Your task to perform on an android device: stop showing notifications on the lock screen Image 0: 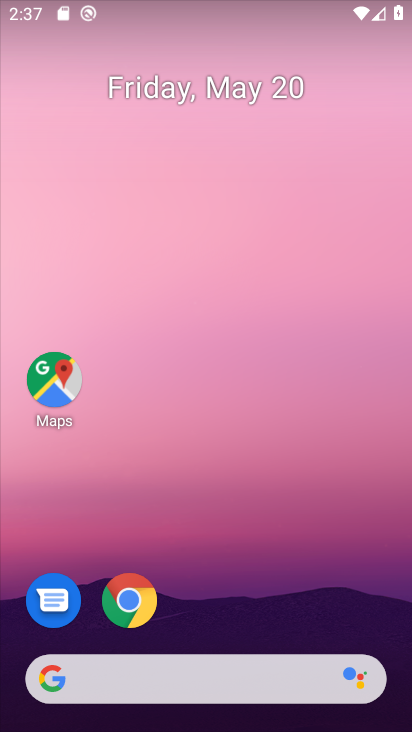
Step 0: drag from (373, 619) to (349, 267)
Your task to perform on an android device: stop showing notifications on the lock screen Image 1: 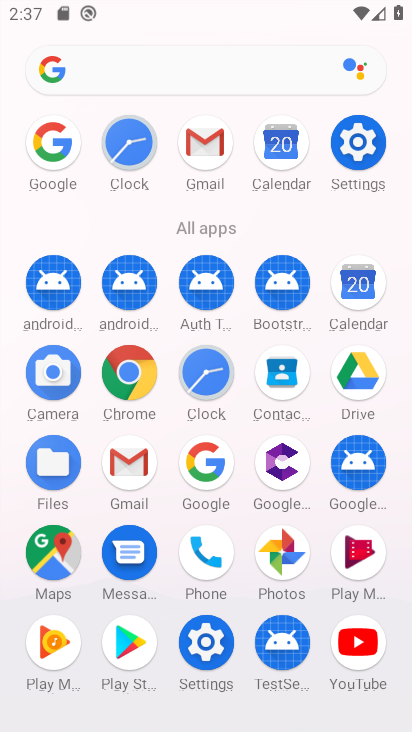
Step 1: click (365, 144)
Your task to perform on an android device: stop showing notifications on the lock screen Image 2: 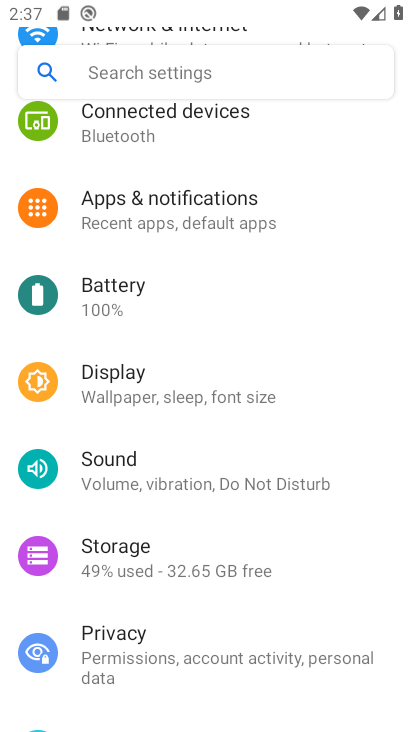
Step 2: drag from (340, 261) to (341, 351)
Your task to perform on an android device: stop showing notifications on the lock screen Image 3: 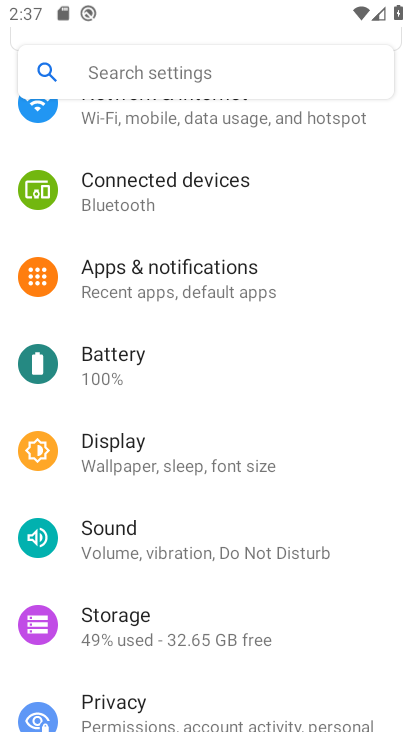
Step 3: drag from (335, 223) to (330, 290)
Your task to perform on an android device: stop showing notifications on the lock screen Image 4: 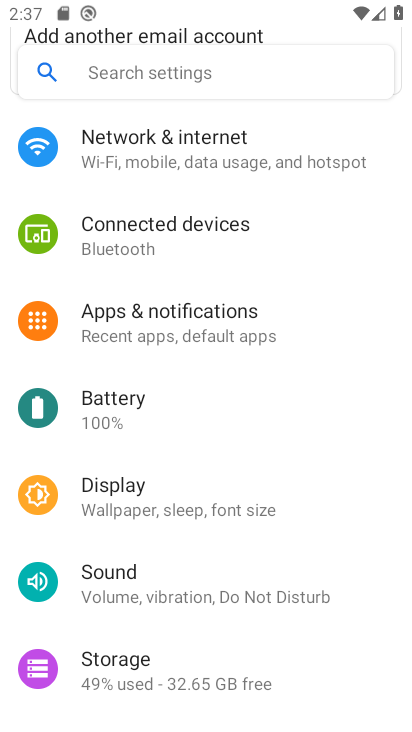
Step 4: drag from (331, 227) to (326, 303)
Your task to perform on an android device: stop showing notifications on the lock screen Image 5: 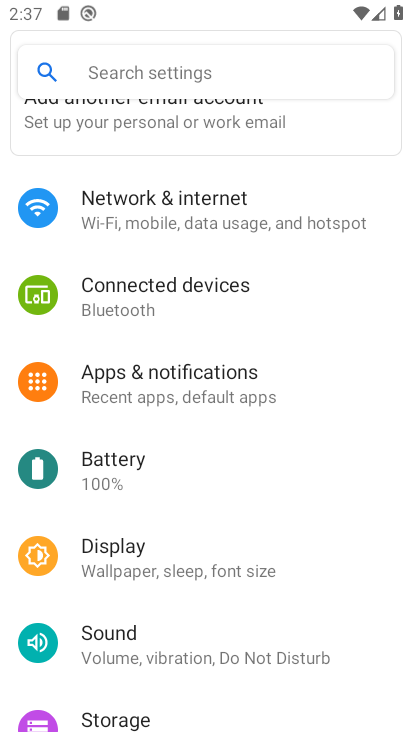
Step 5: drag from (334, 194) to (334, 315)
Your task to perform on an android device: stop showing notifications on the lock screen Image 6: 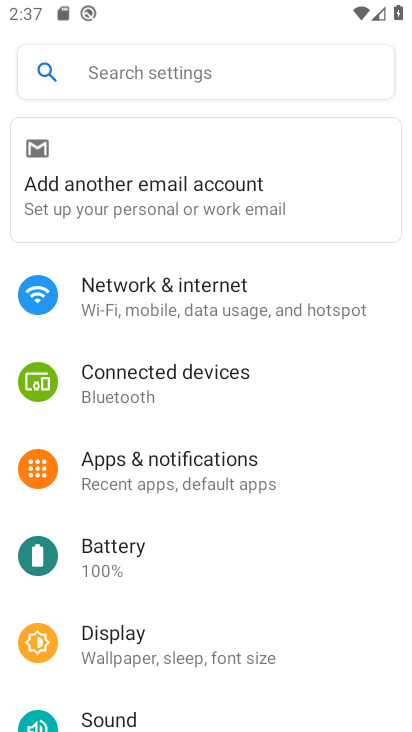
Step 6: drag from (338, 242) to (338, 343)
Your task to perform on an android device: stop showing notifications on the lock screen Image 7: 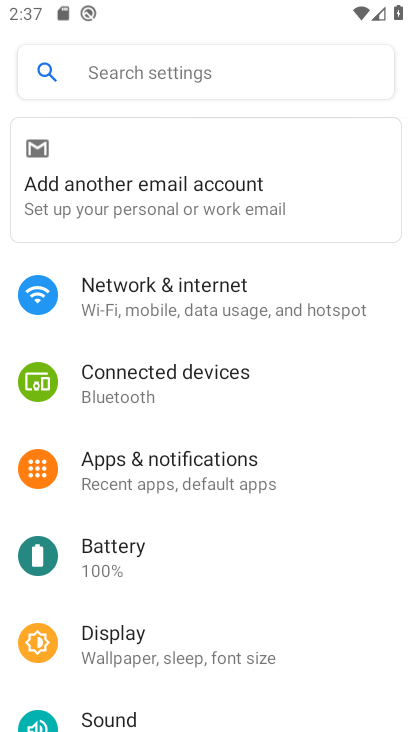
Step 7: drag from (333, 499) to (338, 409)
Your task to perform on an android device: stop showing notifications on the lock screen Image 8: 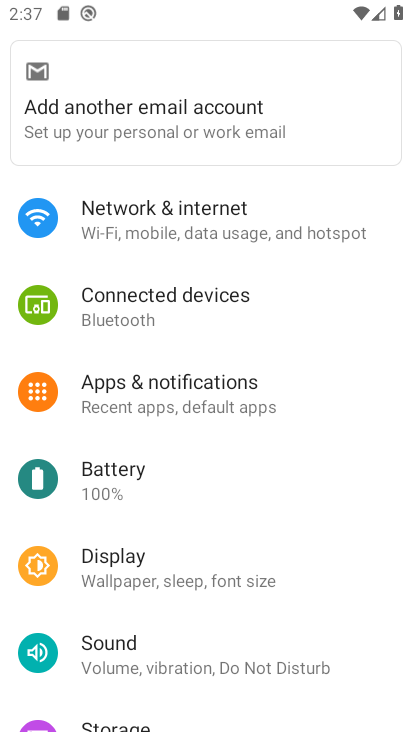
Step 8: drag from (340, 523) to (334, 433)
Your task to perform on an android device: stop showing notifications on the lock screen Image 9: 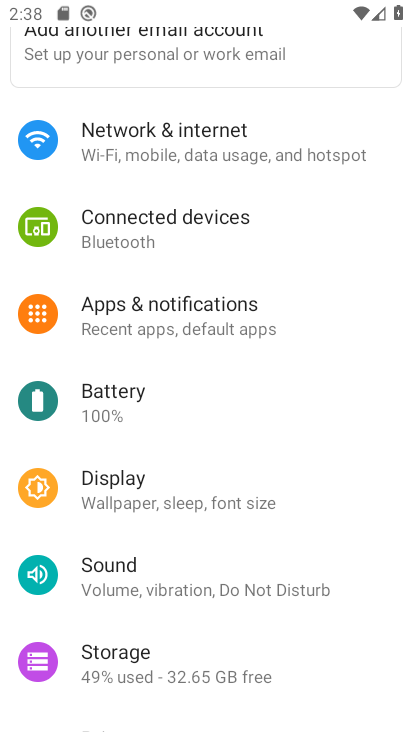
Step 9: drag from (335, 547) to (334, 460)
Your task to perform on an android device: stop showing notifications on the lock screen Image 10: 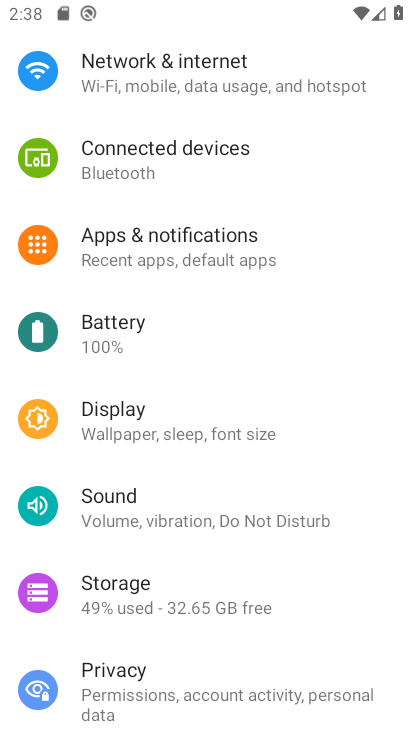
Step 10: drag from (332, 555) to (328, 491)
Your task to perform on an android device: stop showing notifications on the lock screen Image 11: 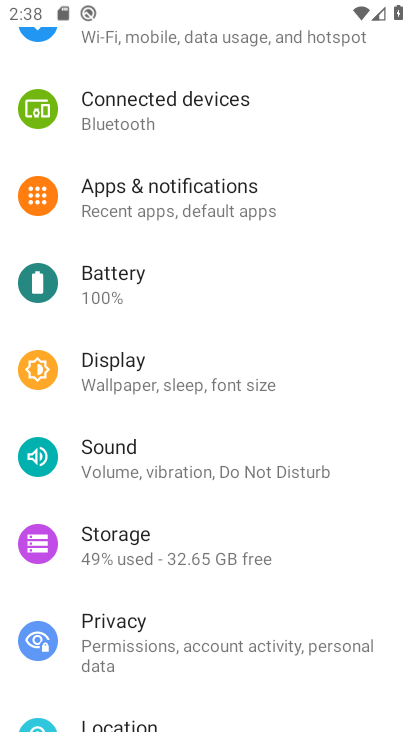
Step 11: drag from (324, 551) to (322, 478)
Your task to perform on an android device: stop showing notifications on the lock screen Image 12: 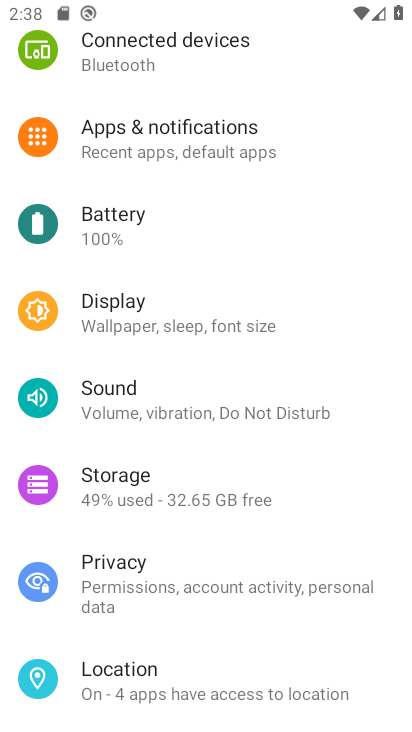
Step 12: drag from (314, 545) to (314, 498)
Your task to perform on an android device: stop showing notifications on the lock screen Image 13: 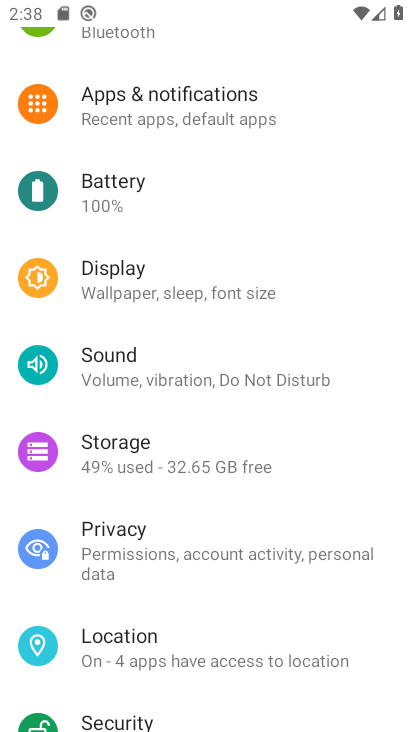
Step 13: drag from (301, 558) to (302, 492)
Your task to perform on an android device: stop showing notifications on the lock screen Image 14: 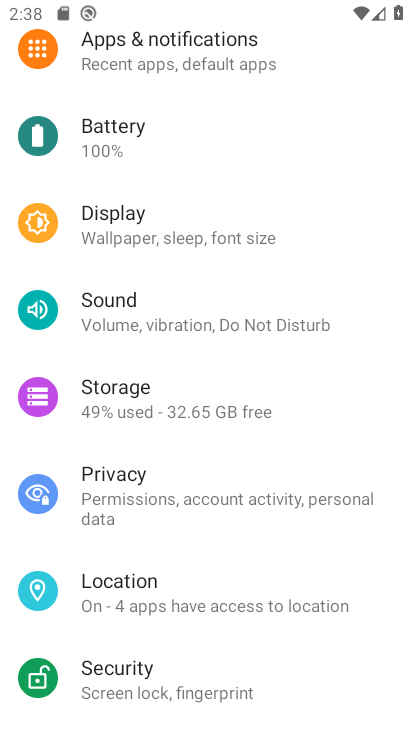
Step 14: drag from (307, 549) to (314, 495)
Your task to perform on an android device: stop showing notifications on the lock screen Image 15: 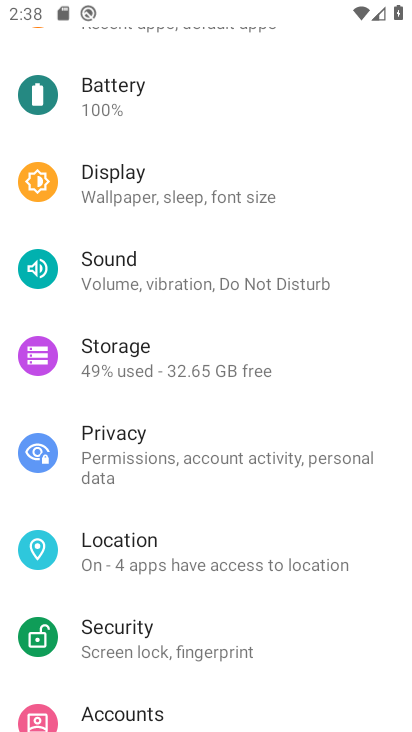
Step 15: drag from (307, 561) to (312, 513)
Your task to perform on an android device: stop showing notifications on the lock screen Image 16: 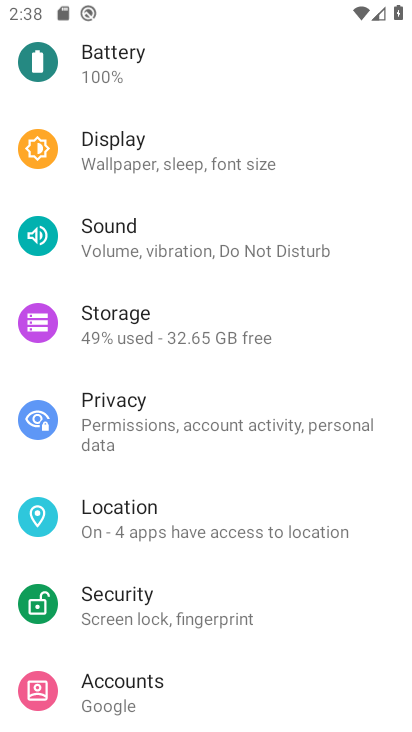
Step 16: drag from (316, 600) to (316, 519)
Your task to perform on an android device: stop showing notifications on the lock screen Image 17: 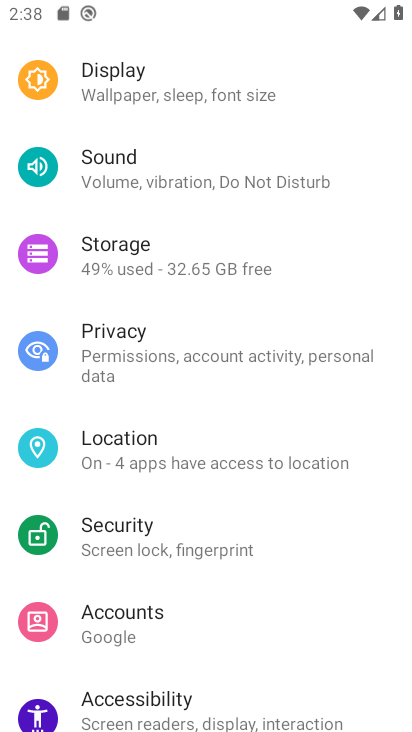
Step 17: drag from (313, 579) to (314, 511)
Your task to perform on an android device: stop showing notifications on the lock screen Image 18: 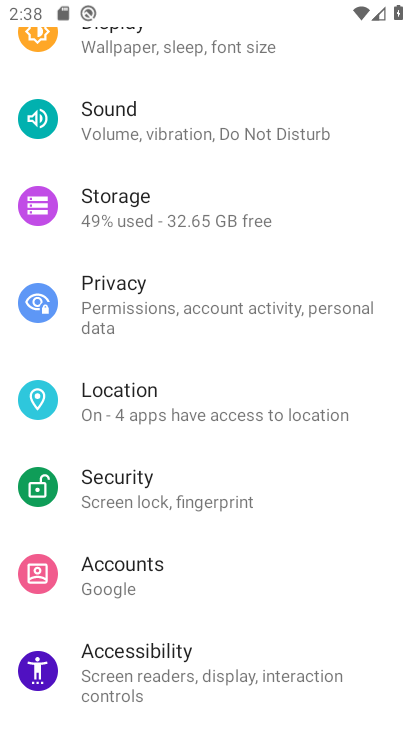
Step 18: drag from (310, 571) to (309, 501)
Your task to perform on an android device: stop showing notifications on the lock screen Image 19: 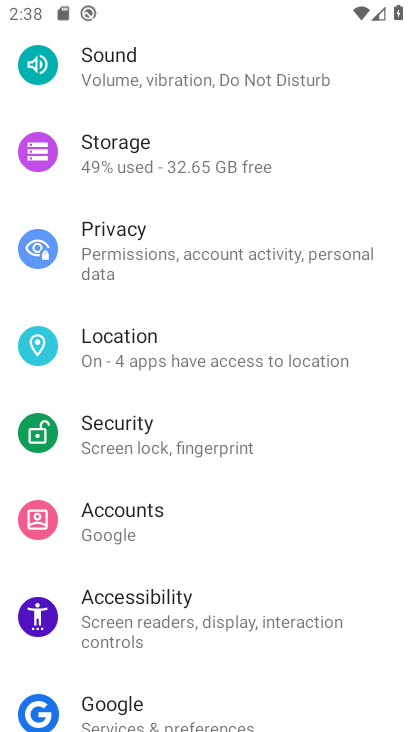
Step 19: drag from (303, 588) to (305, 509)
Your task to perform on an android device: stop showing notifications on the lock screen Image 20: 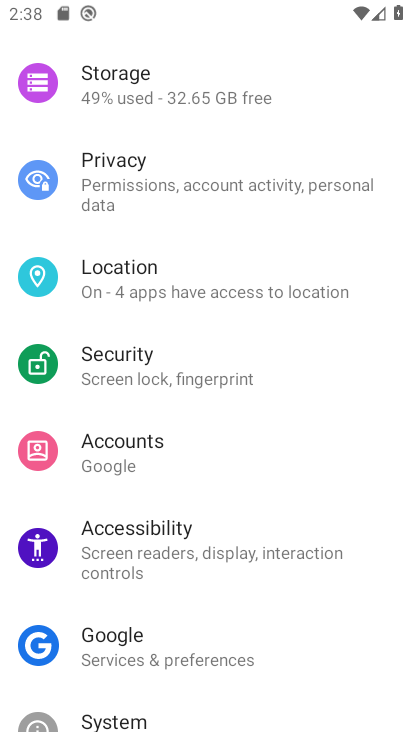
Step 20: drag from (297, 599) to (304, 511)
Your task to perform on an android device: stop showing notifications on the lock screen Image 21: 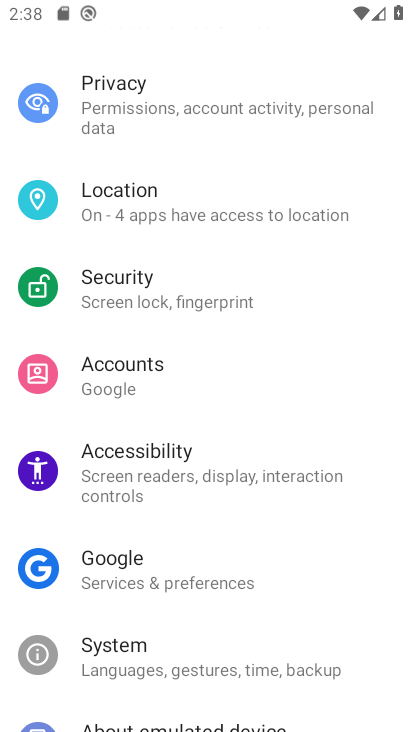
Step 21: drag from (297, 607) to (298, 520)
Your task to perform on an android device: stop showing notifications on the lock screen Image 22: 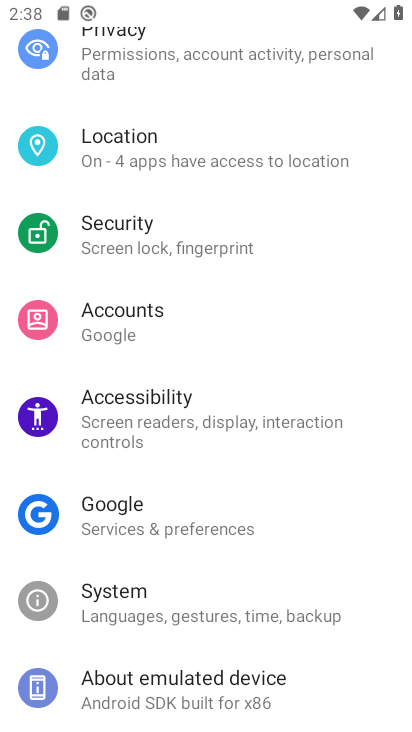
Step 22: drag from (299, 467) to (298, 540)
Your task to perform on an android device: stop showing notifications on the lock screen Image 23: 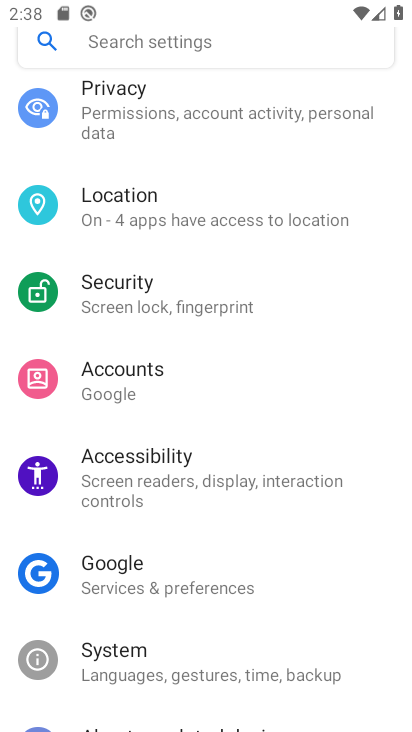
Step 23: drag from (294, 444) to (290, 502)
Your task to perform on an android device: stop showing notifications on the lock screen Image 24: 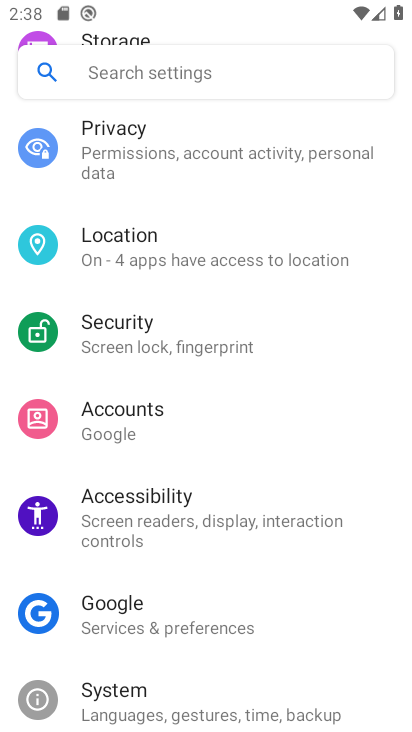
Step 24: drag from (289, 394) to (290, 467)
Your task to perform on an android device: stop showing notifications on the lock screen Image 25: 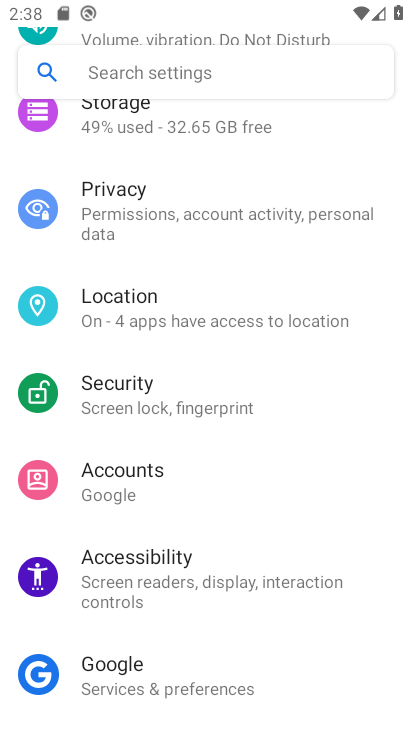
Step 25: drag from (291, 376) to (289, 457)
Your task to perform on an android device: stop showing notifications on the lock screen Image 26: 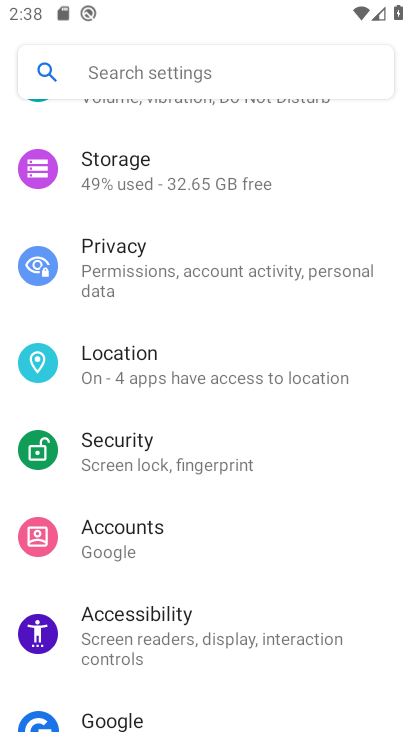
Step 26: drag from (287, 342) to (292, 427)
Your task to perform on an android device: stop showing notifications on the lock screen Image 27: 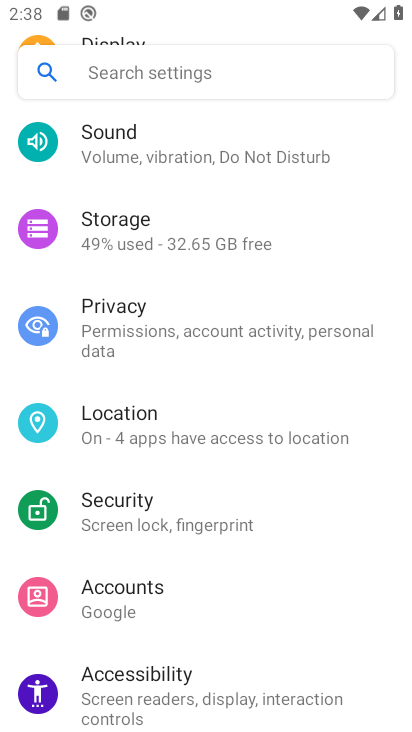
Step 27: drag from (298, 322) to (301, 433)
Your task to perform on an android device: stop showing notifications on the lock screen Image 28: 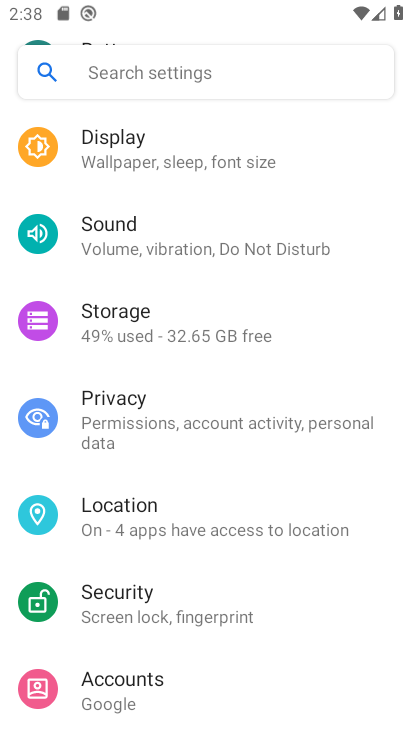
Step 28: drag from (304, 341) to (304, 398)
Your task to perform on an android device: stop showing notifications on the lock screen Image 29: 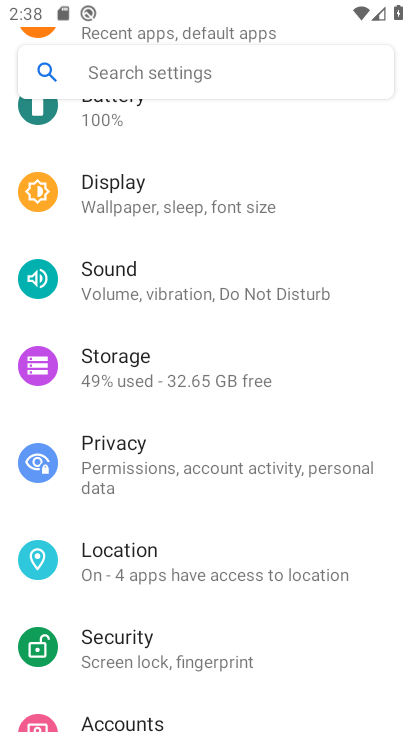
Step 29: drag from (299, 333) to (302, 404)
Your task to perform on an android device: stop showing notifications on the lock screen Image 30: 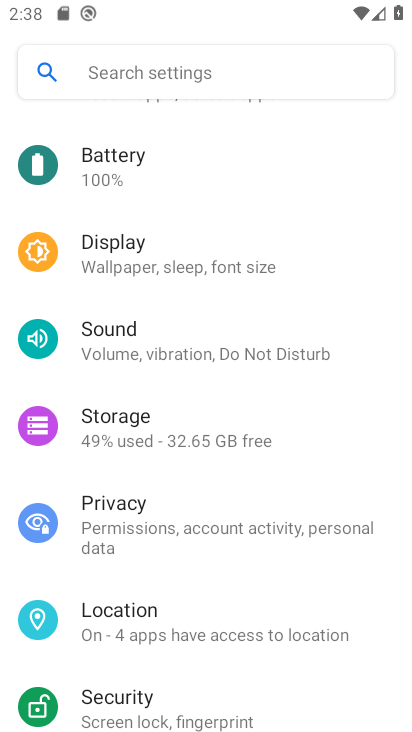
Step 30: drag from (300, 304) to (300, 370)
Your task to perform on an android device: stop showing notifications on the lock screen Image 31: 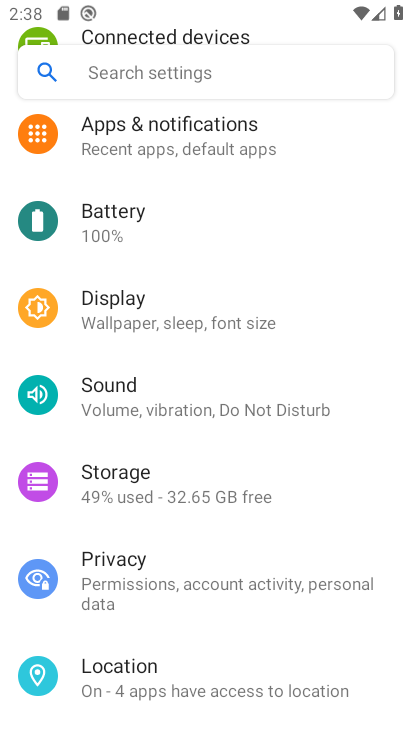
Step 31: drag from (301, 300) to (296, 382)
Your task to perform on an android device: stop showing notifications on the lock screen Image 32: 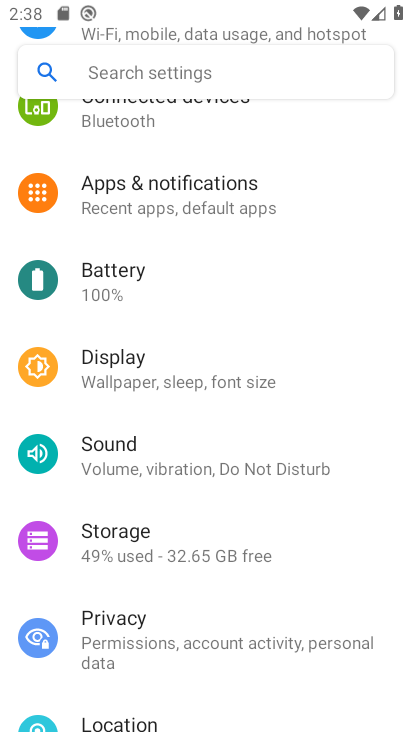
Step 32: drag from (296, 295) to (289, 362)
Your task to perform on an android device: stop showing notifications on the lock screen Image 33: 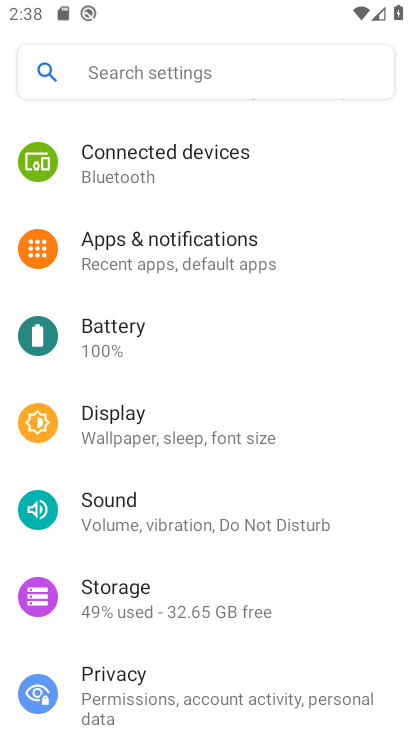
Step 33: drag from (266, 327) to (262, 383)
Your task to perform on an android device: stop showing notifications on the lock screen Image 34: 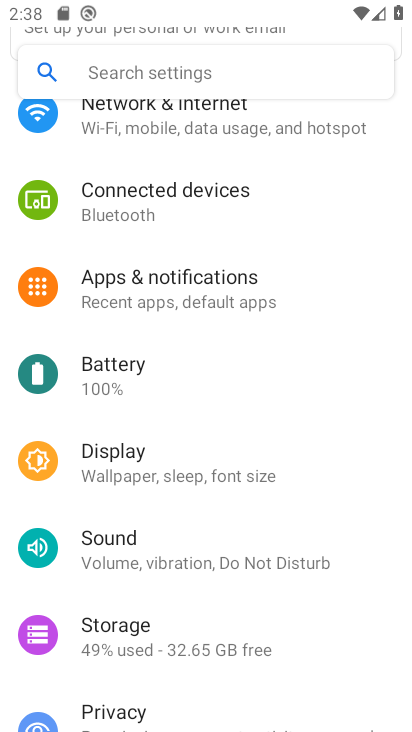
Step 34: click (256, 298)
Your task to perform on an android device: stop showing notifications on the lock screen Image 35: 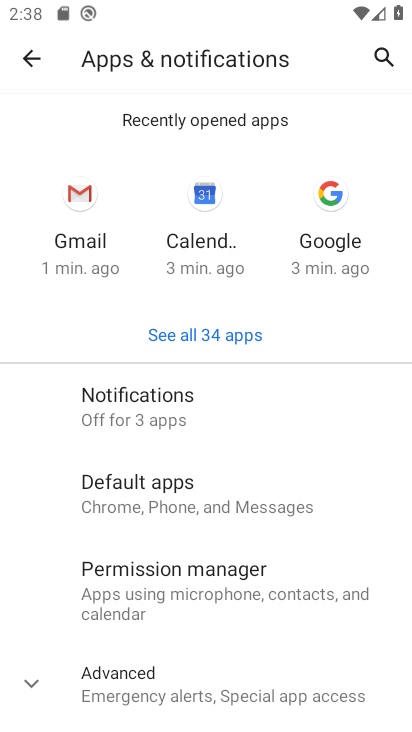
Step 35: drag from (327, 513) to (330, 456)
Your task to perform on an android device: stop showing notifications on the lock screen Image 36: 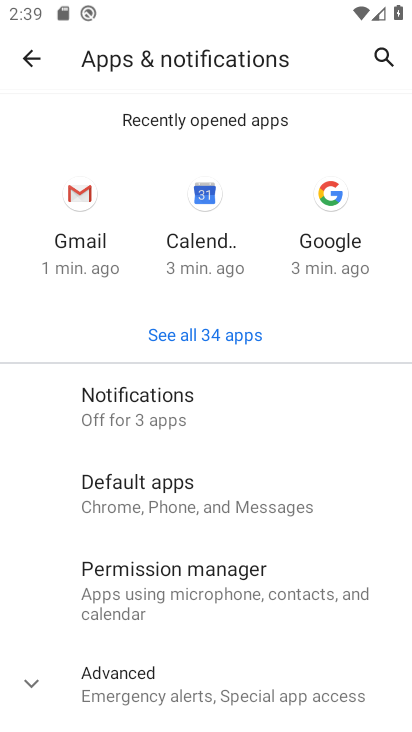
Step 36: click (215, 410)
Your task to perform on an android device: stop showing notifications on the lock screen Image 37: 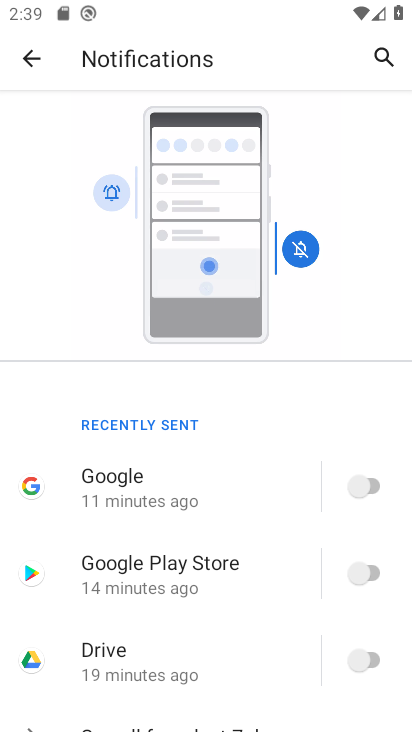
Step 37: drag from (258, 554) to (267, 472)
Your task to perform on an android device: stop showing notifications on the lock screen Image 38: 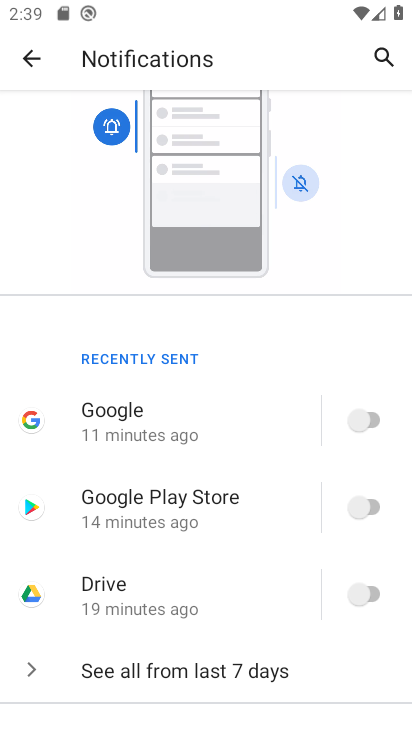
Step 38: drag from (272, 580) to (272, 515)
Your task to perform on an android device: stop showing notifications on the lock screen Image 39: 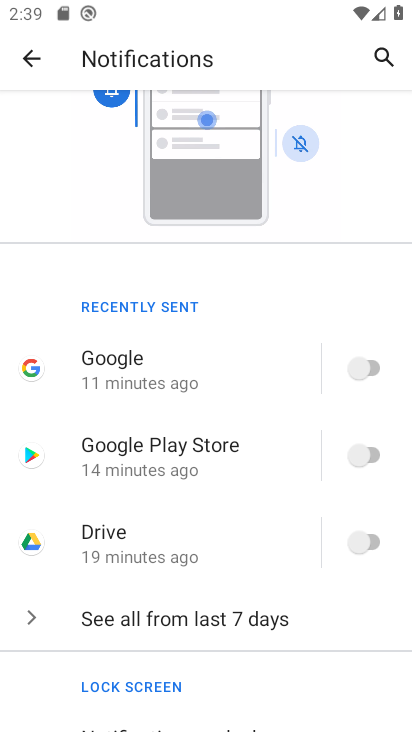
Step 39: drag from (270, 575) to (273, 504)
Your task to perform on an android device: stop showing notifications on the lock screen Image 40: 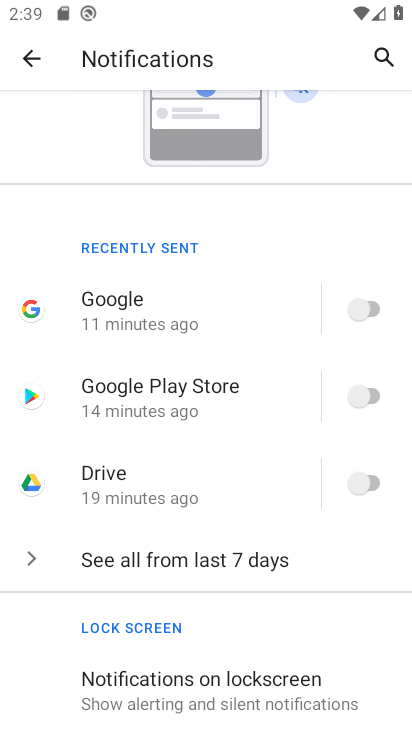
Step 40: drag from (275, 593) to (280, 522)
Your task to perform on an android device: stop showing notifications on the lock screen Image 41: 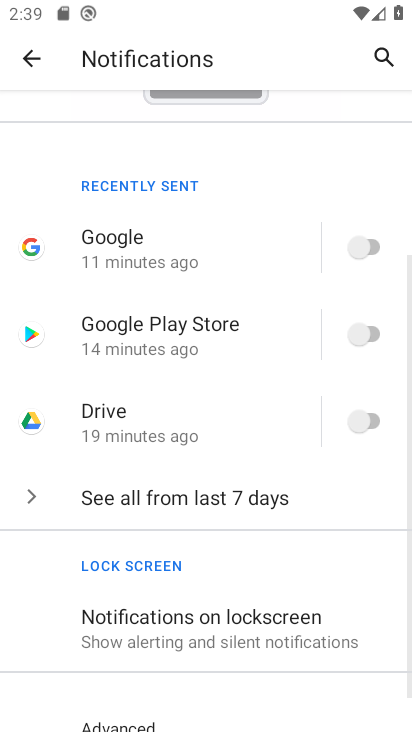
Step 41: drag from (271, 579) to (284, 506)
Your task to perform on an android device: stop showing notifications on the lock screen Image 42: 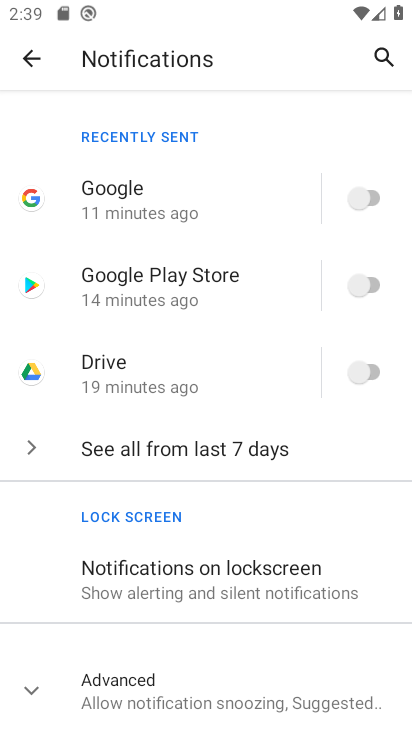
Step 42: click (262, 591)
Your task to perform on an android device: stop showing notifications on the lock screen Image 43: 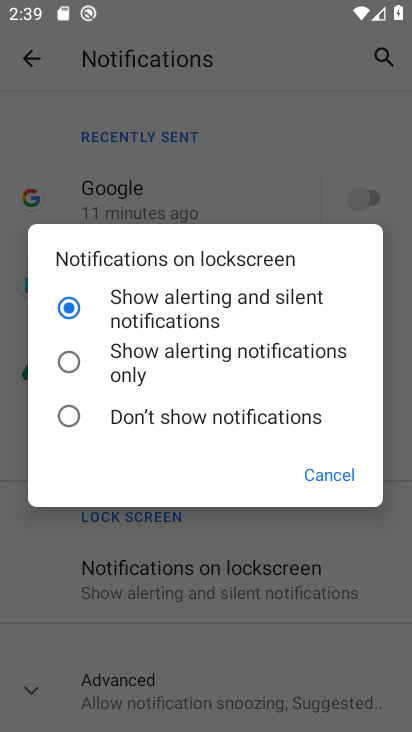
Step 43: click (149, 426)
Your task to perform on an android device: stop showing notifications on the lock screen Image 44: 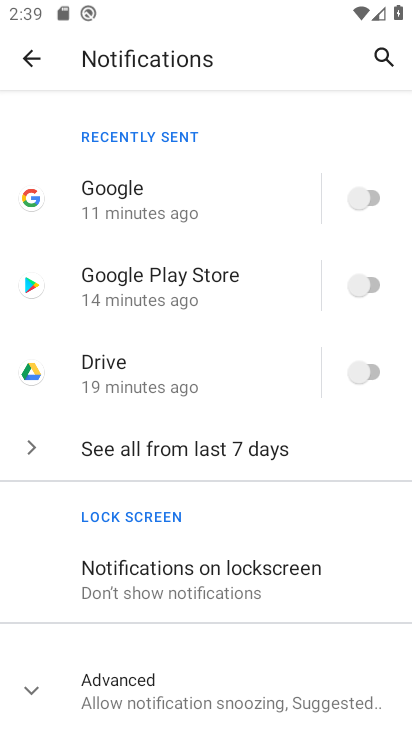
Step 44: task complete